Your task to perform on an android device: Go to Yahoo.com Image 0: 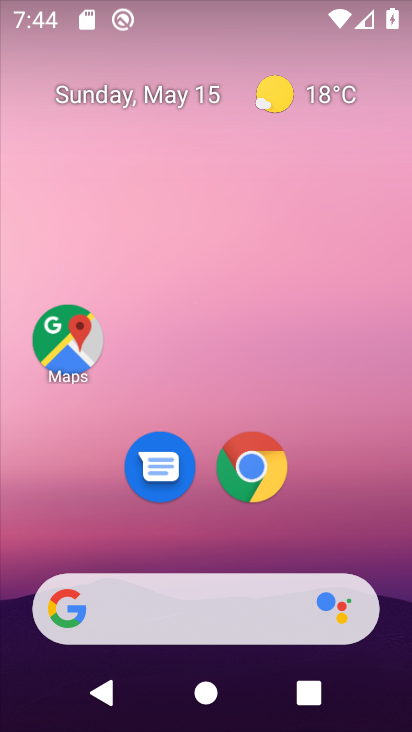
Step 0: click (268, 462)
Your task to perform on an android device: Go to Yahoo.com Image 1: 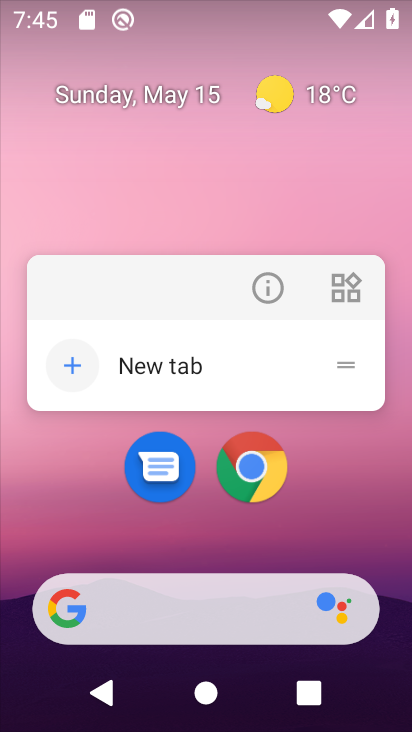
Step 1: click (265, 472)
Your task to perform on an android device: Go to Yahoo.com Image 2: 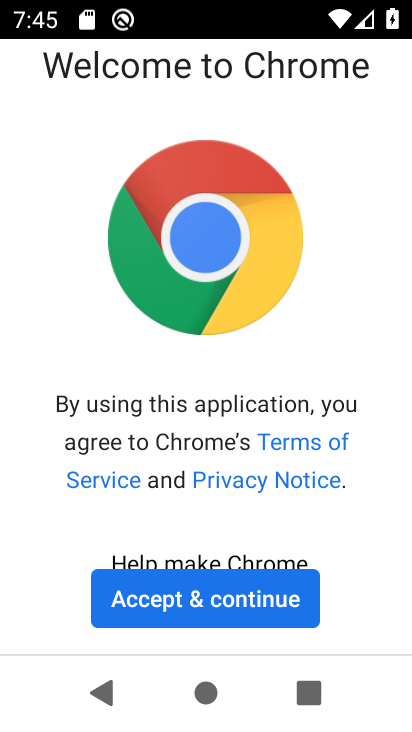
Step 2: click (163, 596)
Your task to perform on an android device: Go to Yahoo.com Image 3: 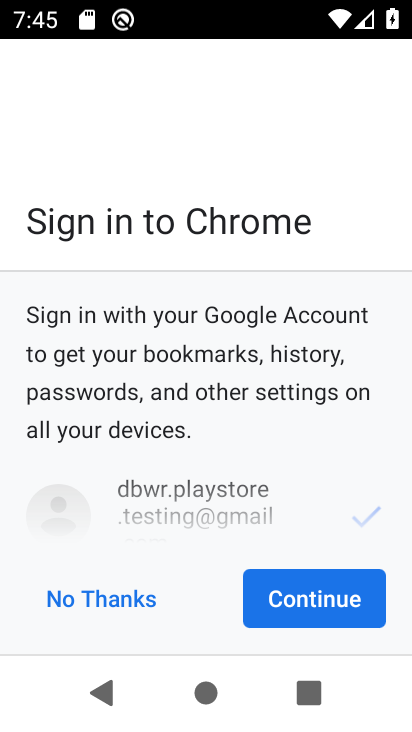
Step 3: click (277, 589)
Your task to perform on an android device: Go to Yahoo.com Image 4: 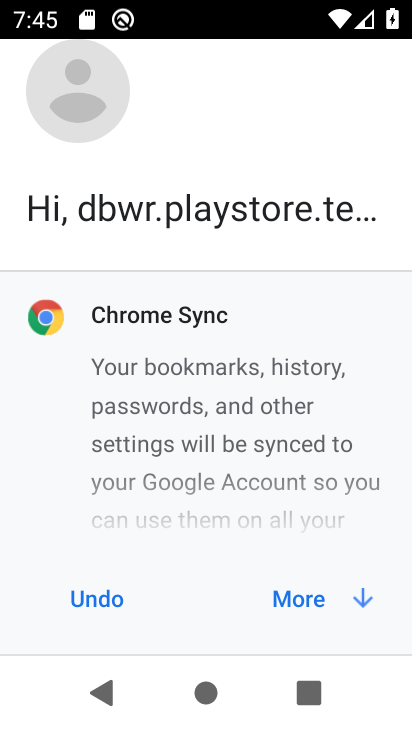
Step 4: click (277, 589)
Your task to perform on an android device: Go to Yahoo.com Image 5: 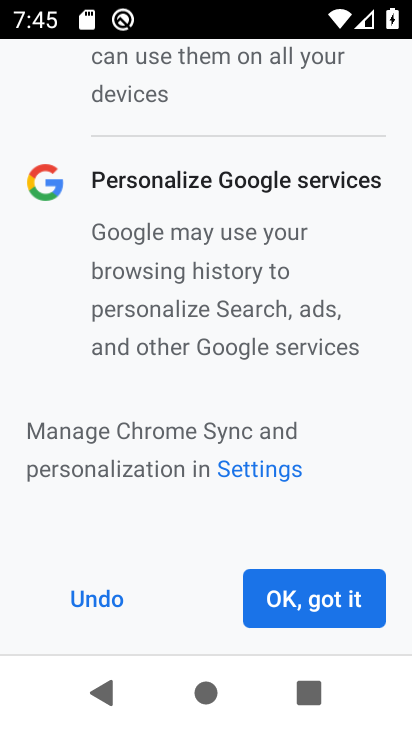
Step 5: click (300, 591)
Your task to perform on an android device: Go to Yahoo.com Image 6: 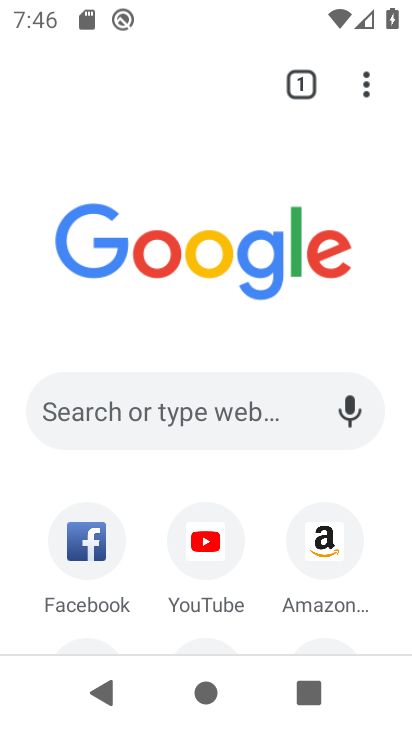
Step 6: click (155, 419)
Your task to perform on an android device: Go to Yahoo.com Image 7: 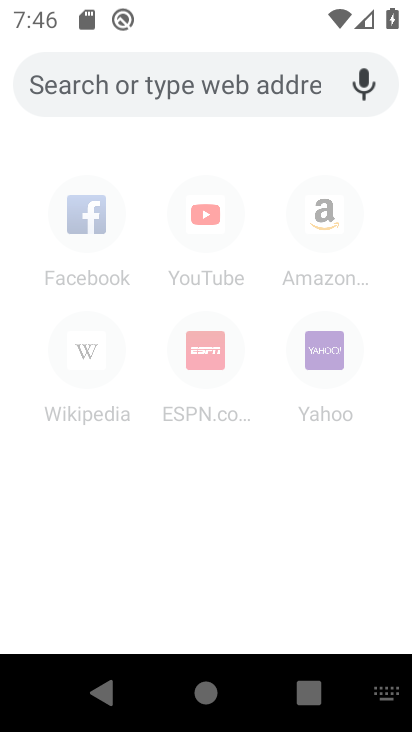
Step 7: click (330, 356)
Your task to perform on an android device: Go to Yahoo.com Image 8: 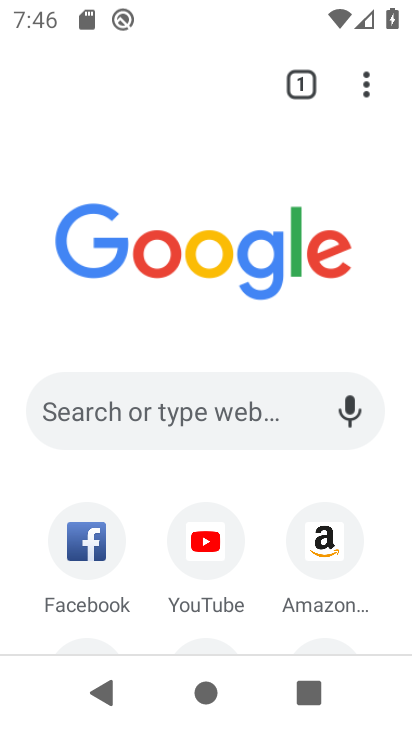
Step 8: drag from (263, 508) to (256, 313)
Your task to perform on an android device: Go to Yahoo.com Image 9: 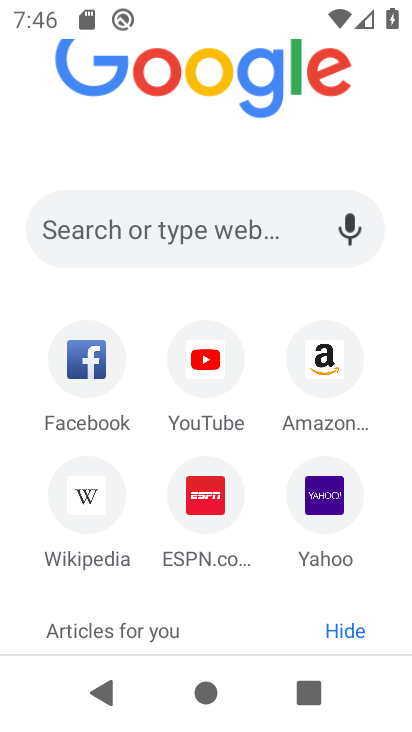
Step 9: click (315, 491)
Your task to perform on an android device: Go to Yahoo.com Image 10: 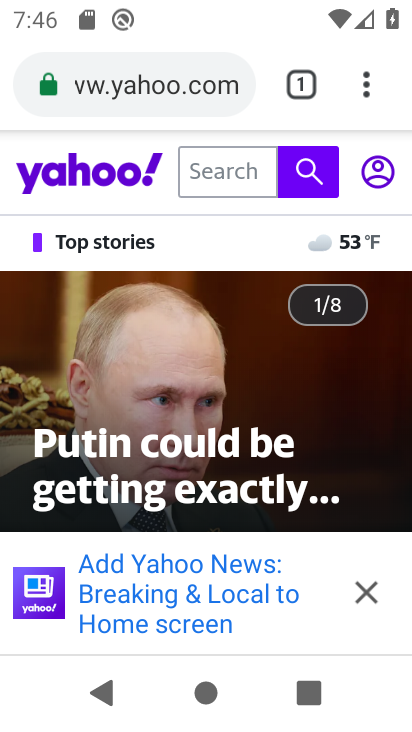
Step 10: task complete